Your task to perform on an android device: turn notification dots on Image 0: 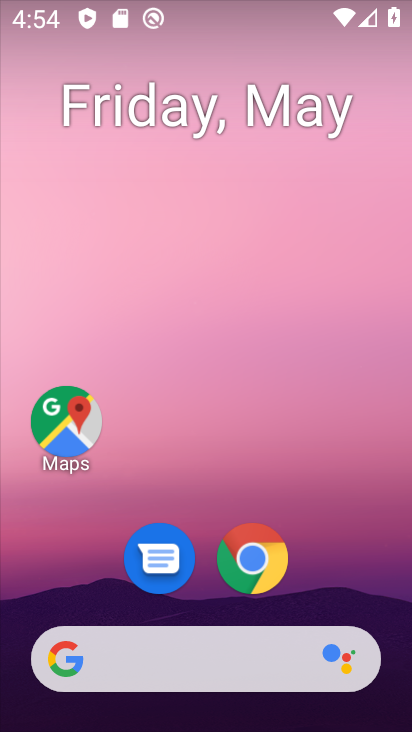
Step 0: drag from (362, 594) to (243, 119)
Your task to perform on an android device: turn notification dots on Image 1: 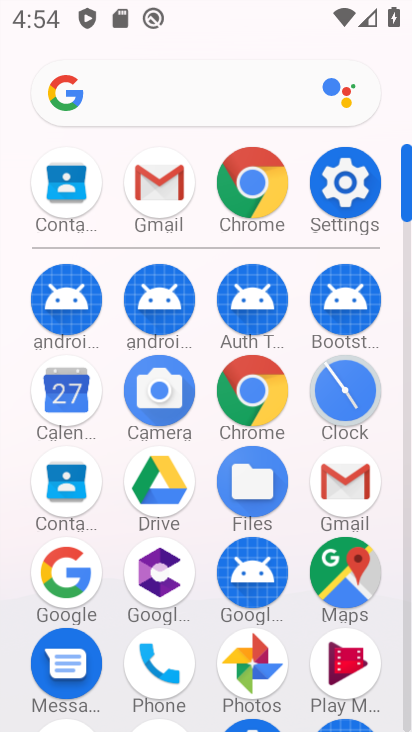
Step 1: click (352, 194)
Your task to perform on an android device: turn notification dots on Image 2: 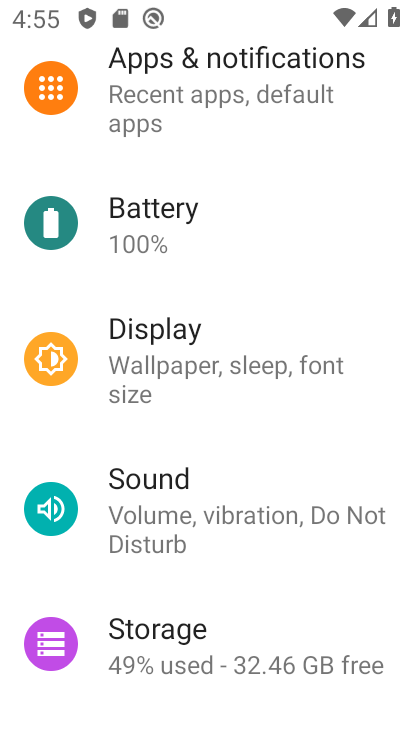
Step 2: drag from (297, 625) to (327, 723)
Your task to perform on an android device: turn notification dots on Image 3: 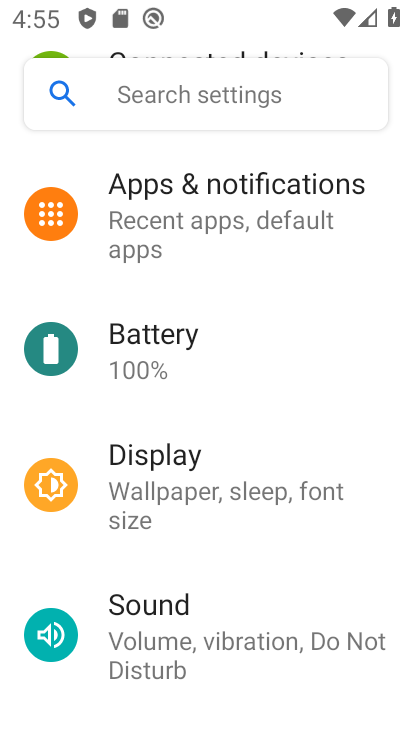
Step 3: click (239, 224)
Your task to perform on an android device: turn notification dots on Image 4: 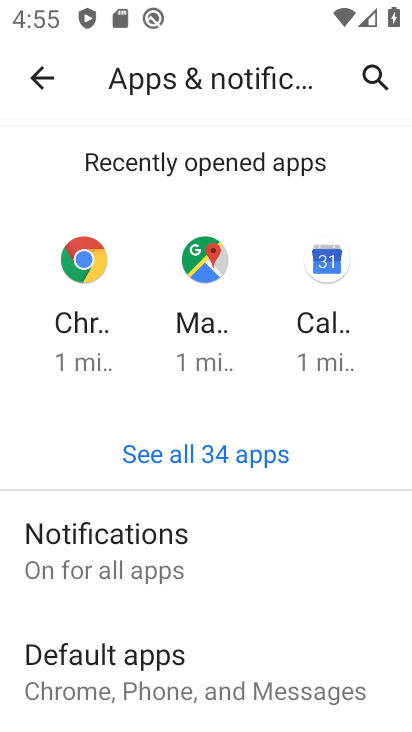
Step 4: click (206, 519)
Your task to perform on an android device: turn notification dots on Image 5: 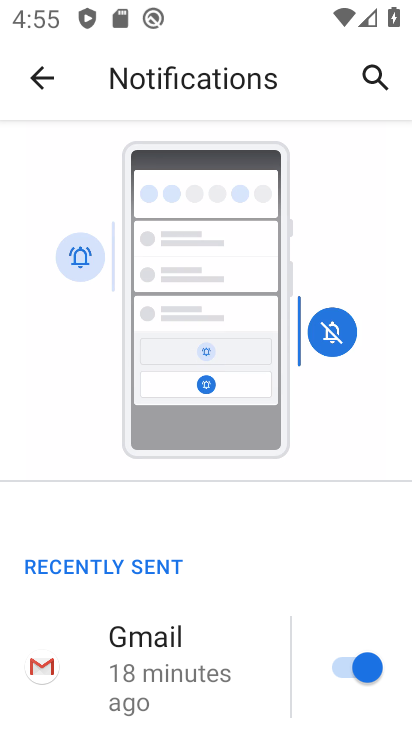
Step 5: drag from (239, 603) to (208, 158)
Your task to perform on an android device: turn notification dots on Image 6: 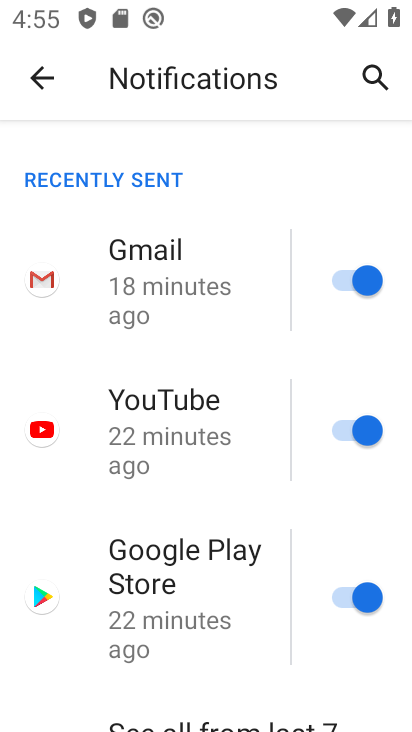
Step 6: drag from (267, 657) to (227, 263)
Your task to perform on an android device: turn notification dots on Image 7: 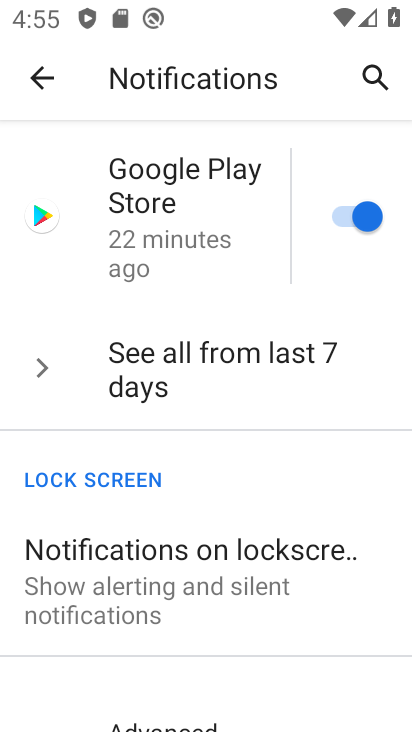
Step 7: drag from (269, 638) to (243, 362)
Your task to perform on an android device: turn notification dots on Image 8: 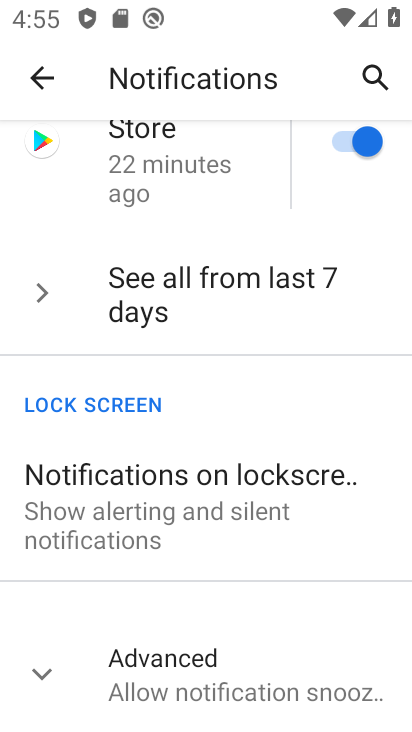
Step 8: click (254, 665)
Your task to perform on an android device: turn notification dots on Image 9: 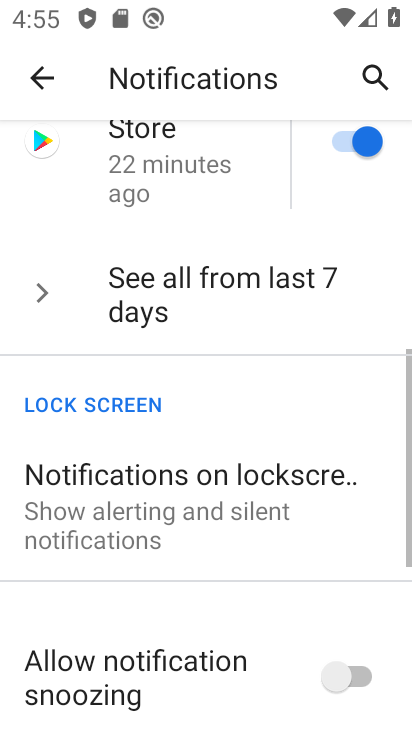
Step 9: drag from (254, 665) to (166, 363)
Your task to perform on an android device: turn notification dots on Image 10: 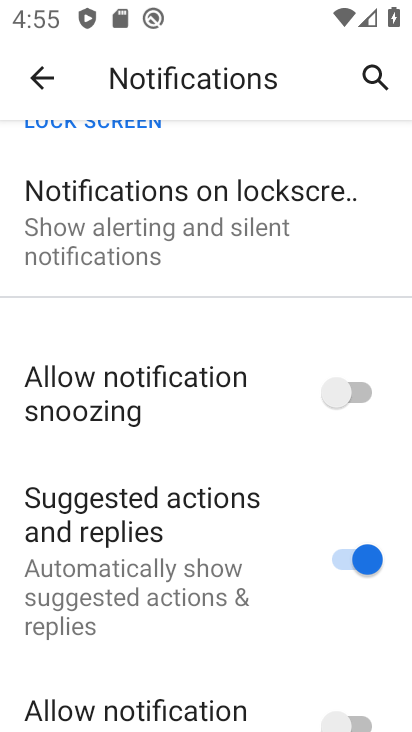
Step 10: drag from (285, 663) to (251, 271)
Your task to perform on an android device: turn notification dots on Image 11: 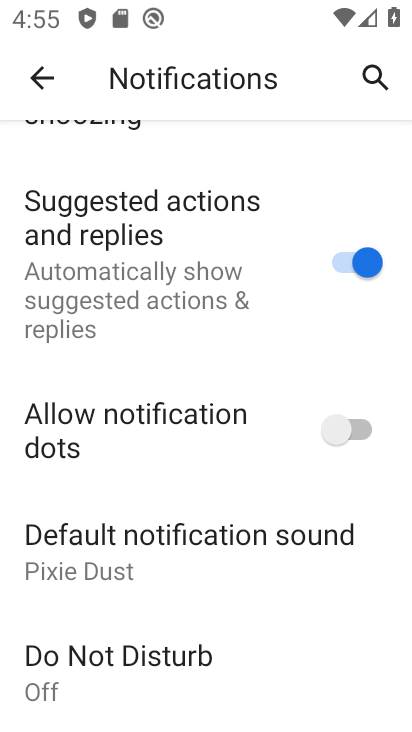
Step 11: click (351, 455)
Your task to perform on an android device: turn notification dots on Image 12: 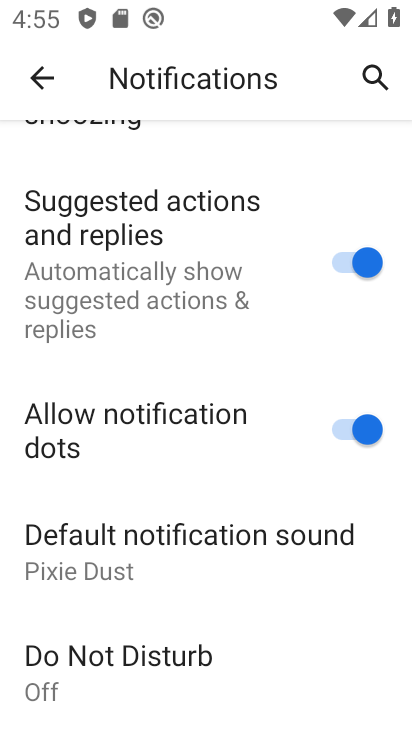
Step 12: task complete